Your task to perform on an android device: turn off sleep mode Image 0: 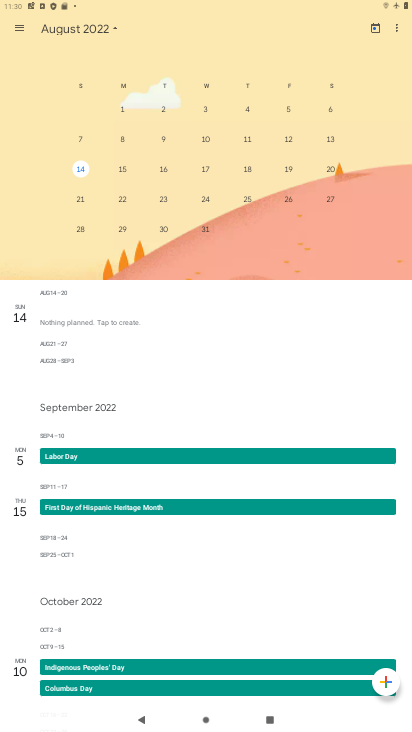
Step 0: press home button
Your task to perform on an android device: turn off sleep mode Image 1: 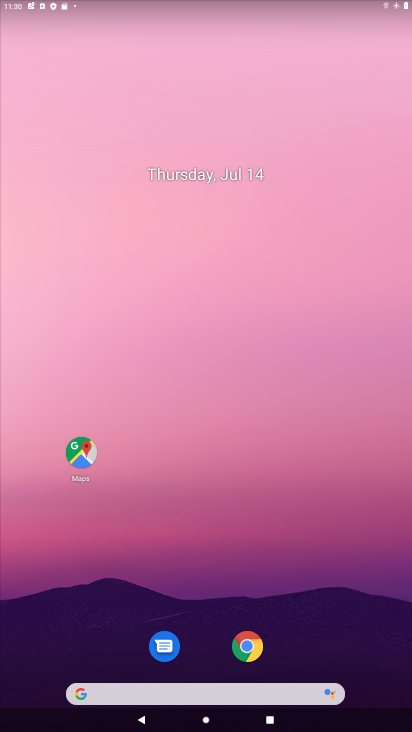
Step 1: drag from (197, 639) to (186, 282)
Your task to perform on an android device: turn off sleep mode Image 2: 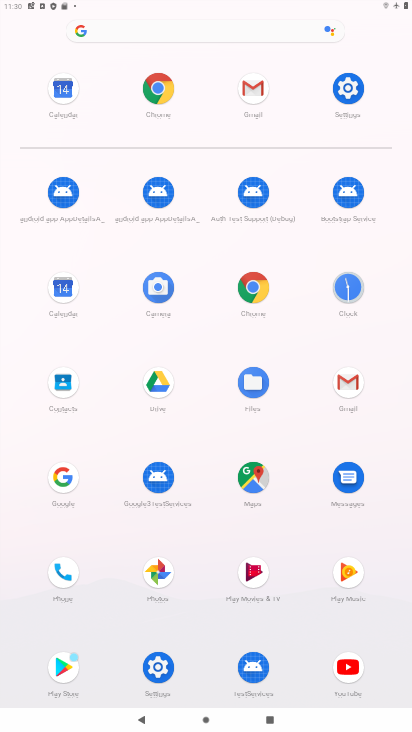
Step 2: click (337, 104)
Your task to perform on an android device: turn off sleep mode Image 3: 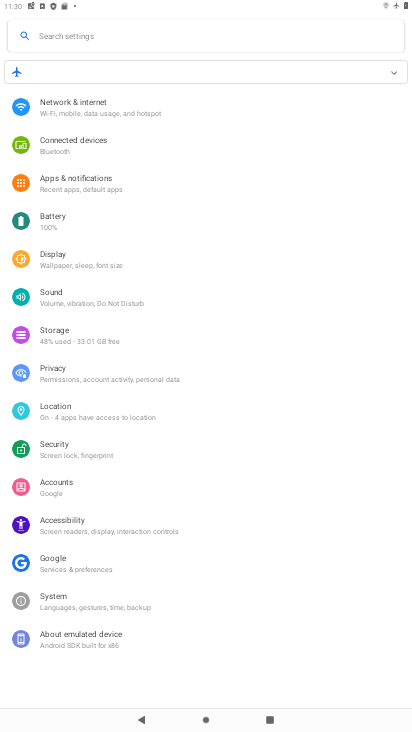
Step 3: click (57, 262)
Your task to perform on an android device: turn off sleep mode Image 4: 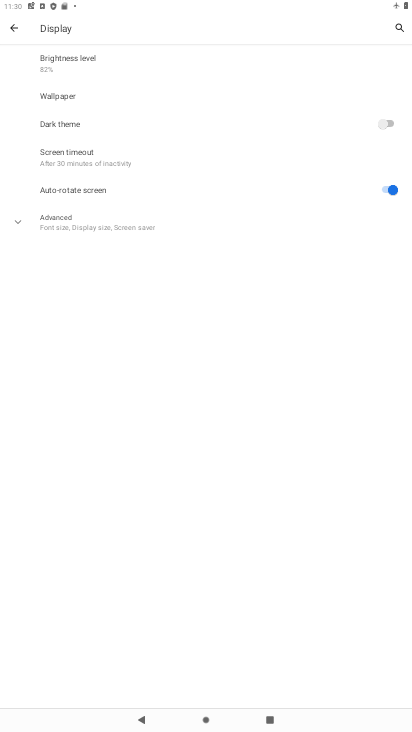
Step 4: click (62, 164)
Your task to perform on an android device: turn off sleep mode Image 5: 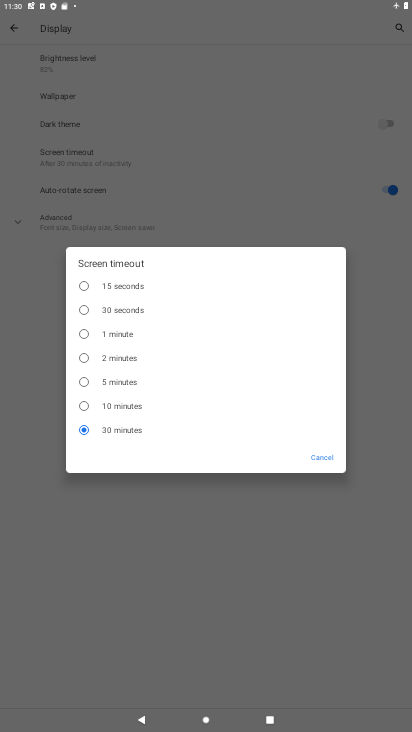
Step 5: click (112, 326)
Your task to perform on an android device: turn off sleep mode Image 6: 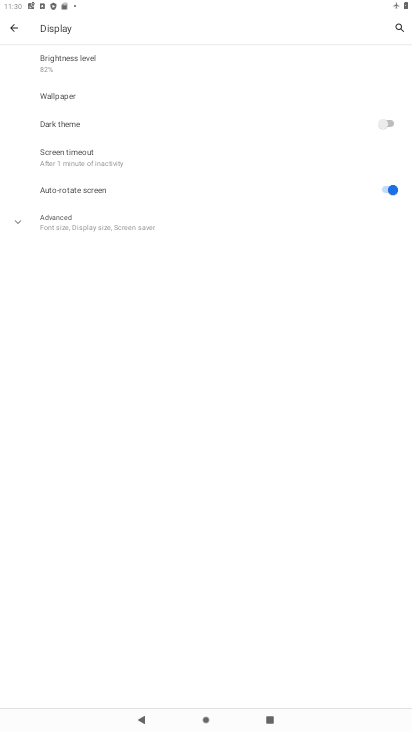
Step 6: task complete